Your task to perform on an android device: set an alarm Image 0: 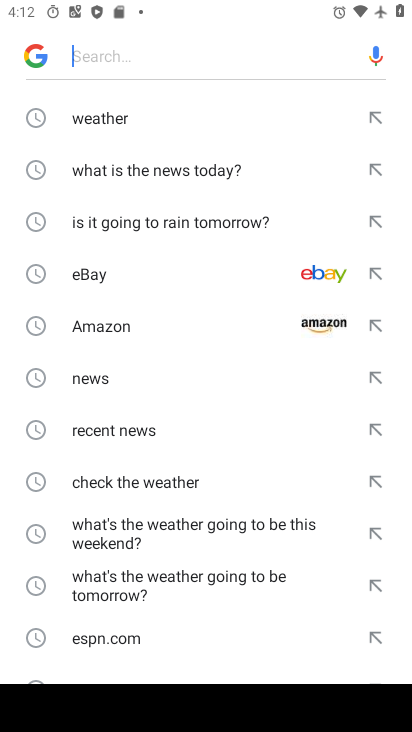
Step 0: press back button
Your task to perform on an android device: set an alarm Image 1: 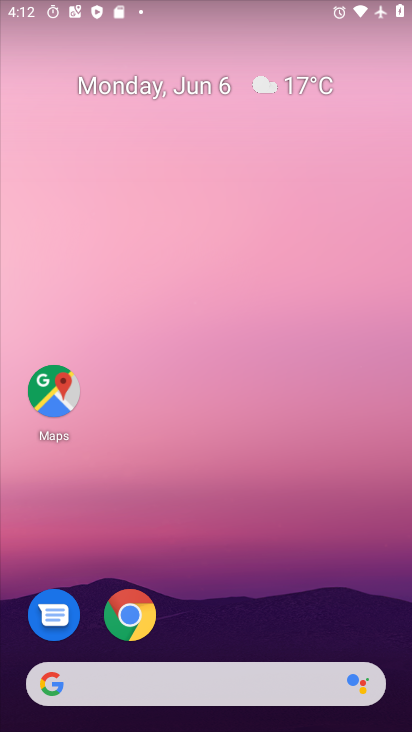
Step 1: drag from (263, 596) to (286, 74)
Your task to perform on an android device: set an alarm Image 2: 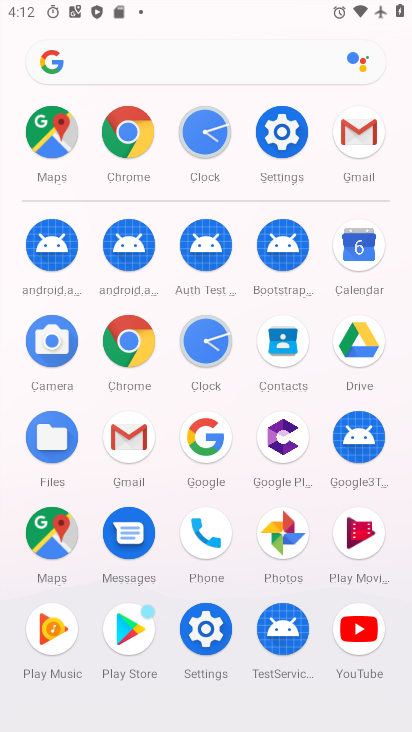
Step 2: click (203, 337)
Your task to perform on an android device: set an alarm Image 3: 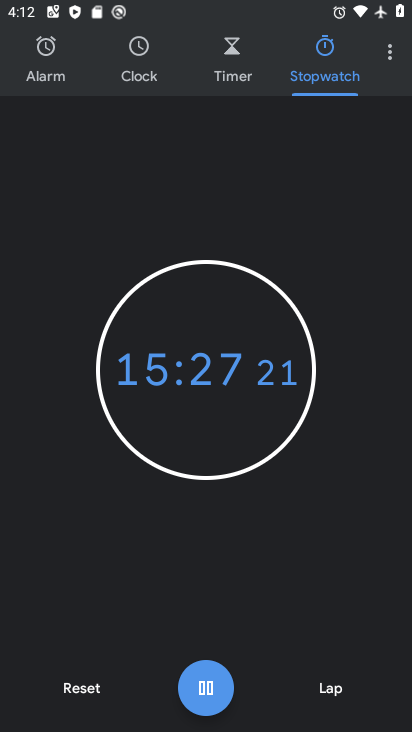
Step 3: click (59, 45)
Your task to perform on an android device: set an alarm Image 4: 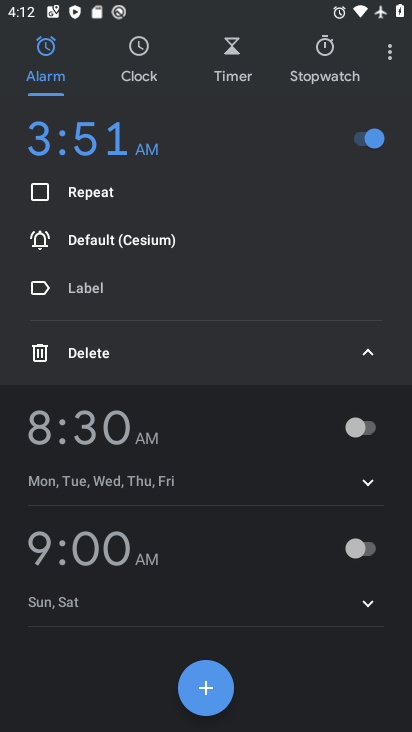
Step 4: click (193, 679)
Your task to perform on an android device: set an alarm Image 5: 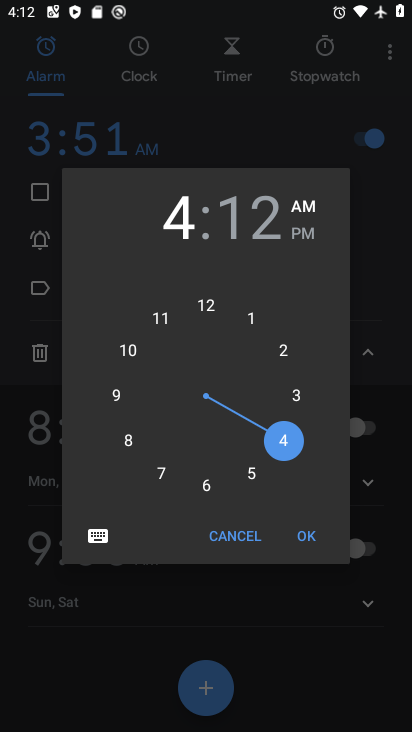
Step 5: click (297, 528)
Your task to perform on an android device: set an alarm Image 6: 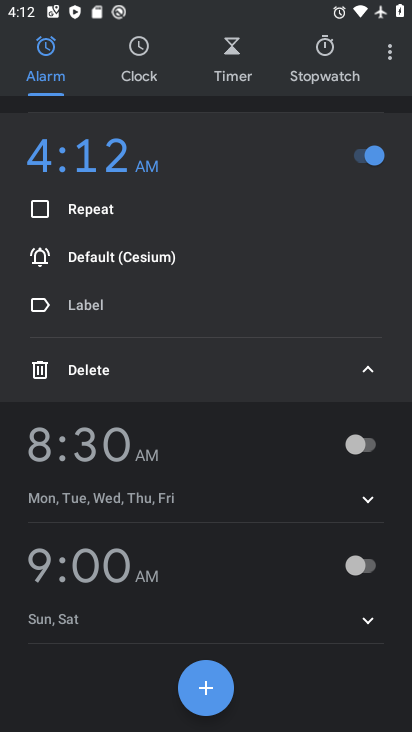
Step 6: task complete